Your task to perform on an android device: change the clock display to analog Image 0: 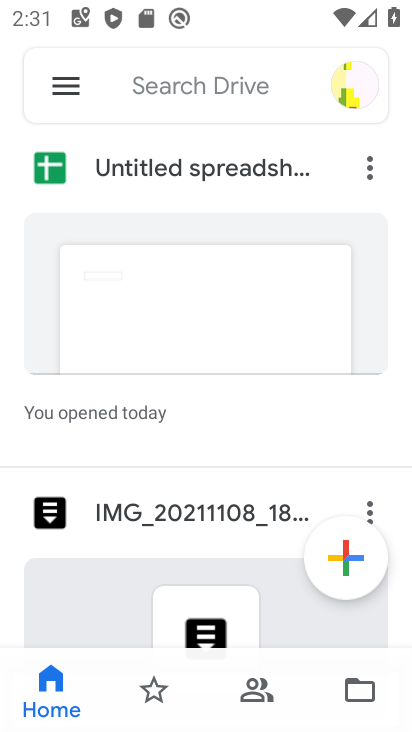
Step 0: press home button
Your task to perform on an android device: change the clock display to analog Image 1: 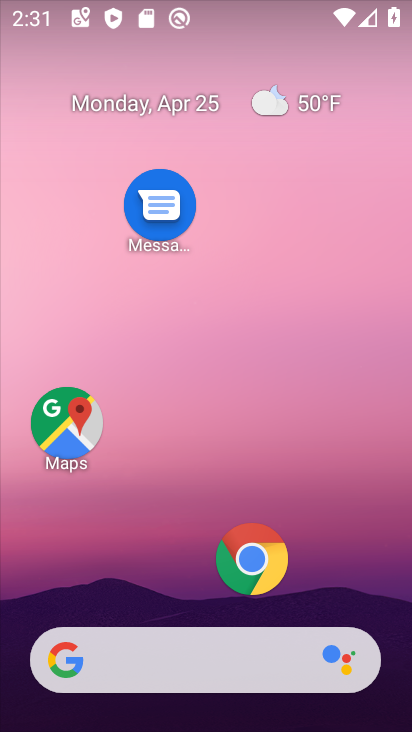
Step 1: drag from (167, 531) to (201, 1)
Your task to perform on an android device: change the clock display to analog Image 2: 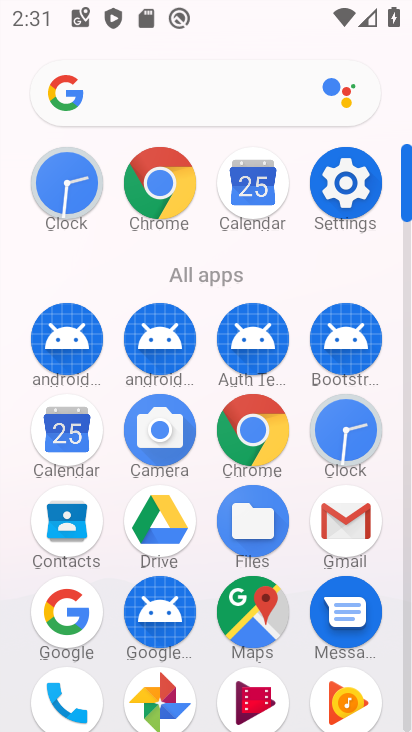
Step 2: click (344, 430)
Your task to perform on an android device: change the clock display to analog Image 3: 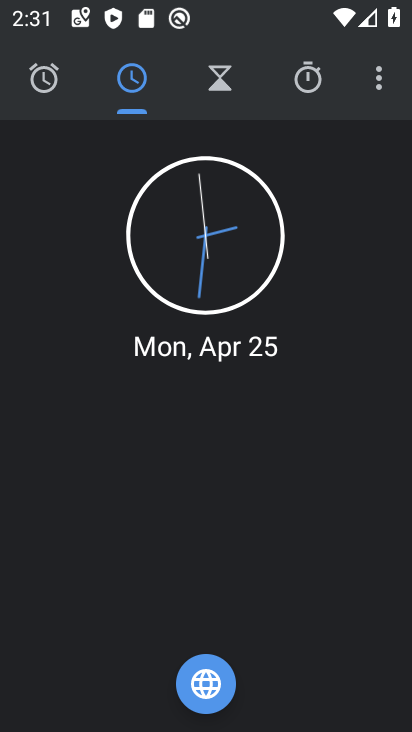
Step 3: click (383, 83)
Your task to perform on an android device: change the clock display to analog Image 4: 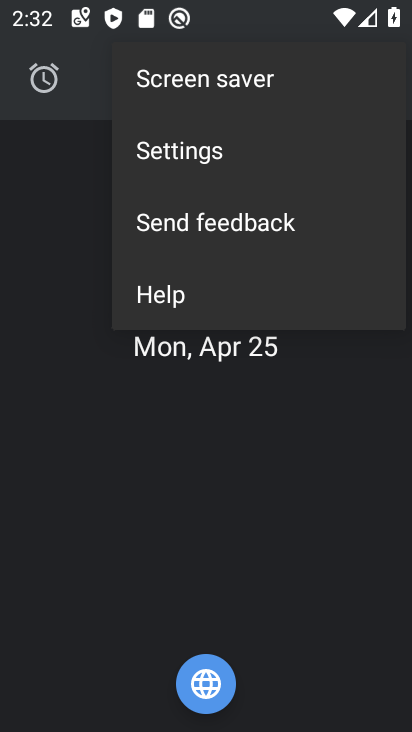
Step 4: click (184, 150)
Your task to perform on an android device: change the clock display to analog Image 5: 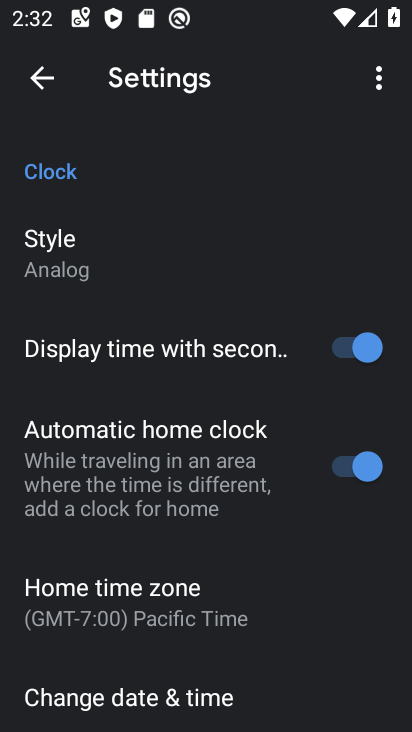
Step 5: task complete